Your task to perform on an android device: What's the weather? Image 0: 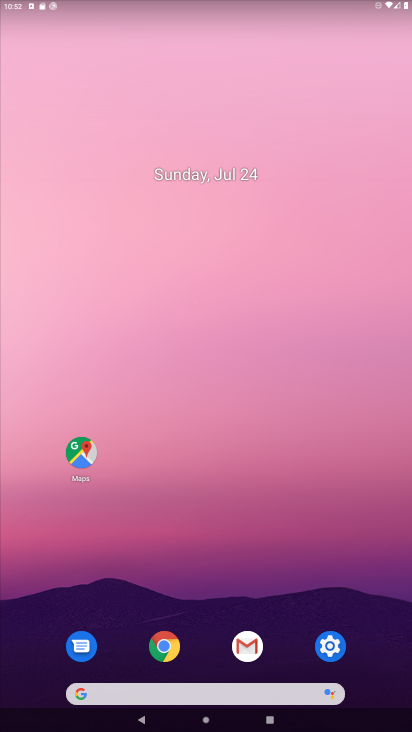
Step 0: click (195, 696)
Your task to perform on an android device: What's the weather? Image 1: 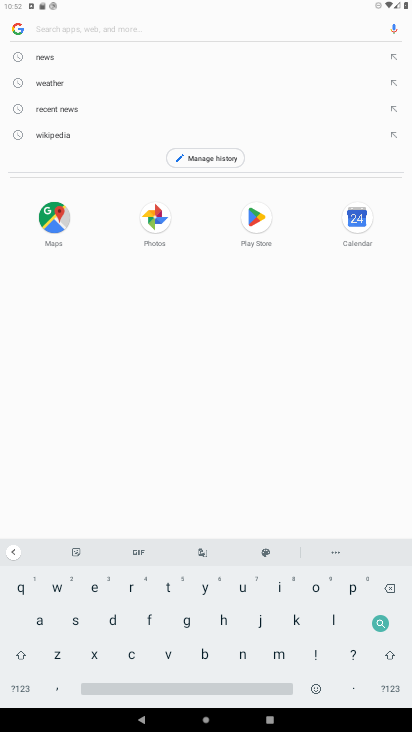
Step 1: click (57, 79)
Your task to perform on an android device: What's the weather? Image 2: 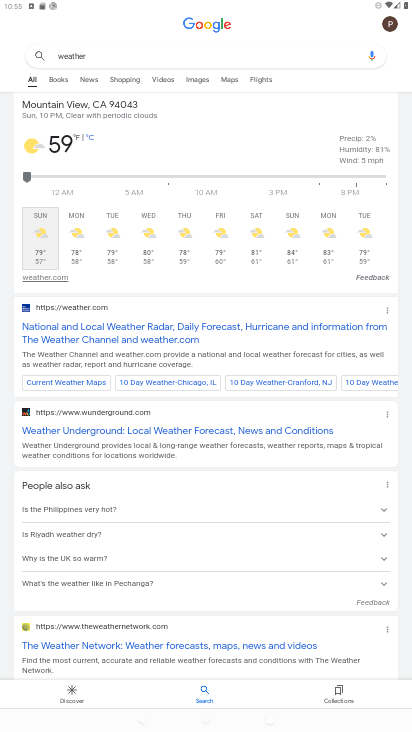
Step 2: task complete